Your task to perform on an android device: snooze an email in the gmail app Image 0: 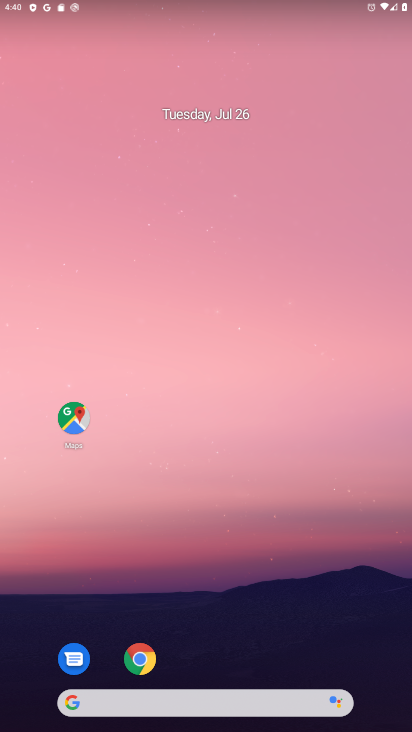
Step 0: press home button
Your task to perform on an android device: snooze an email in the gmail app Image 1: 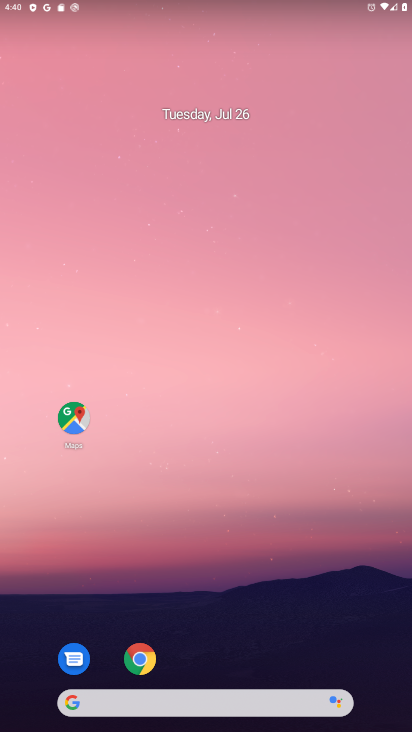
Step 1: drag from (205, 671) to (213, 12)
Your task to perform on an android device: snooze an email in the gmail app Image 2: 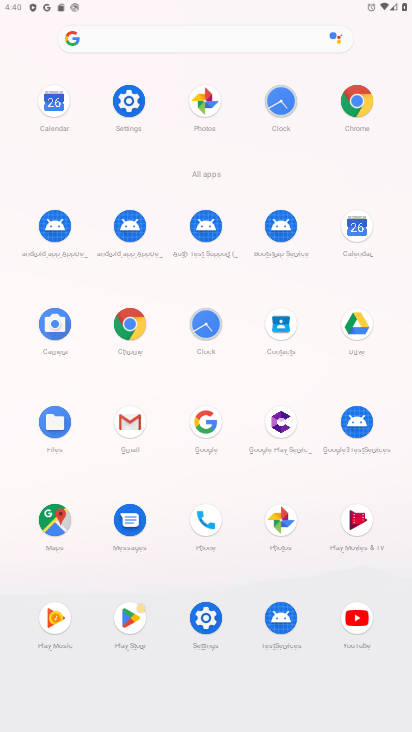
Step 2: click (131, 421)
Your task to perform on an android device: snooze an email in the gmail app Image 3: 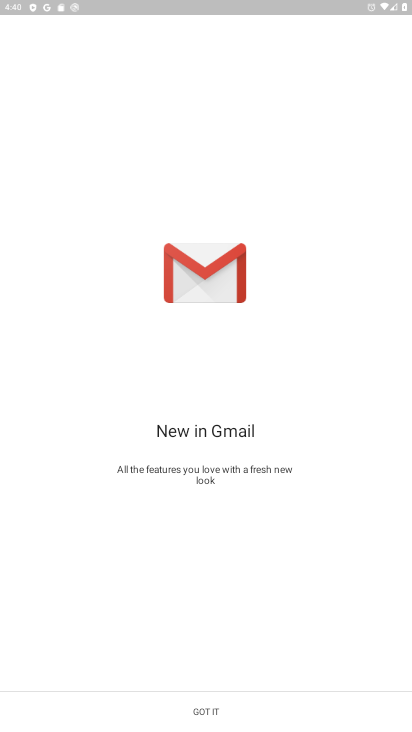
Step 3: click (207, 707)
Your task to perform on an android device: snooze an email in the gmail app Image 4: 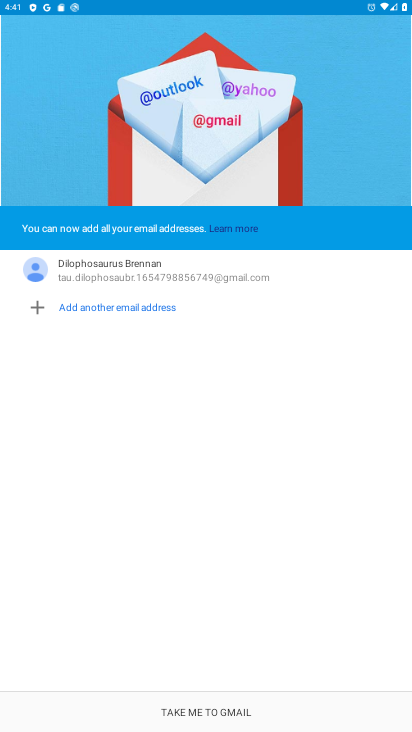
Step 4: click (207, 711)
Your task to perform on an android device: snooze an email in the gmail app Image 5: 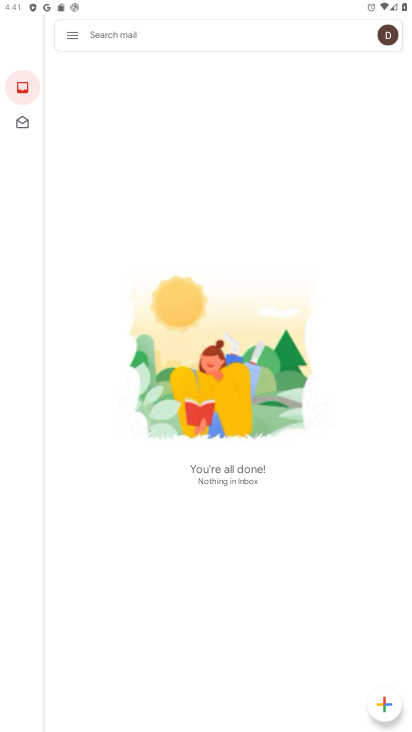
Step 5: task complete